Your task to perform on an android device: turn off data saver in the chrome app Image 0: 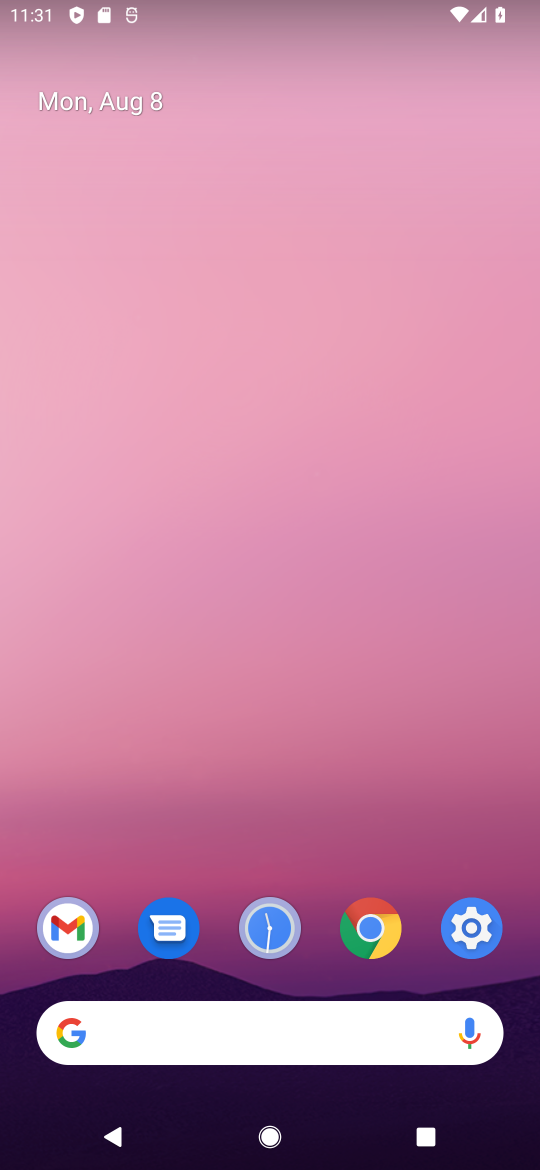
Step 0: press home button
Your task to perform on an android device: turn off data saver in the chrome app Image 1: 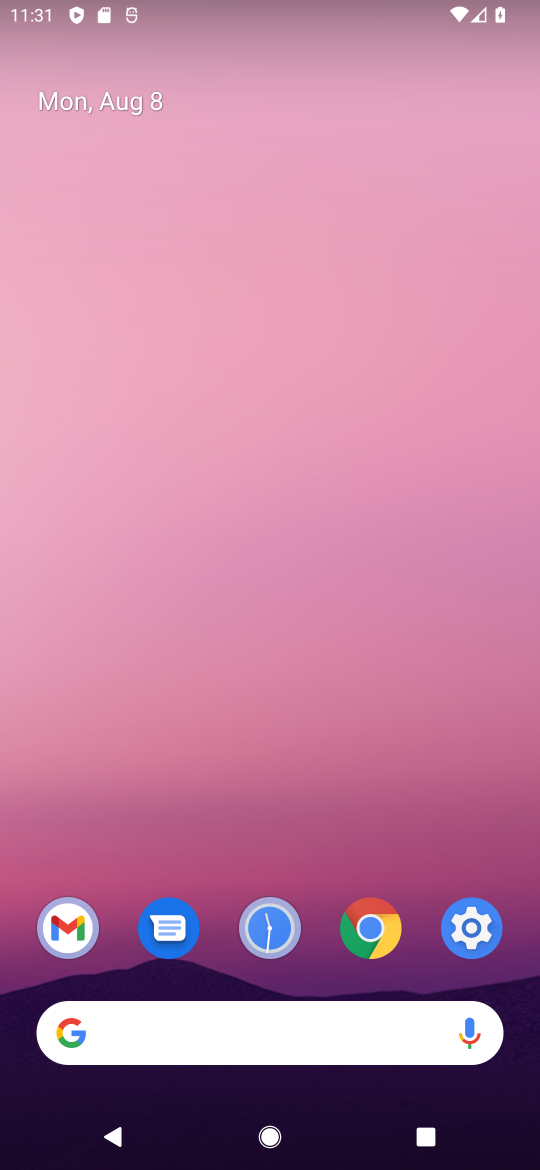
Step 1: click (374, 932)
Your task to perform on an android device: turn off data saver in the chrome app Image 2: 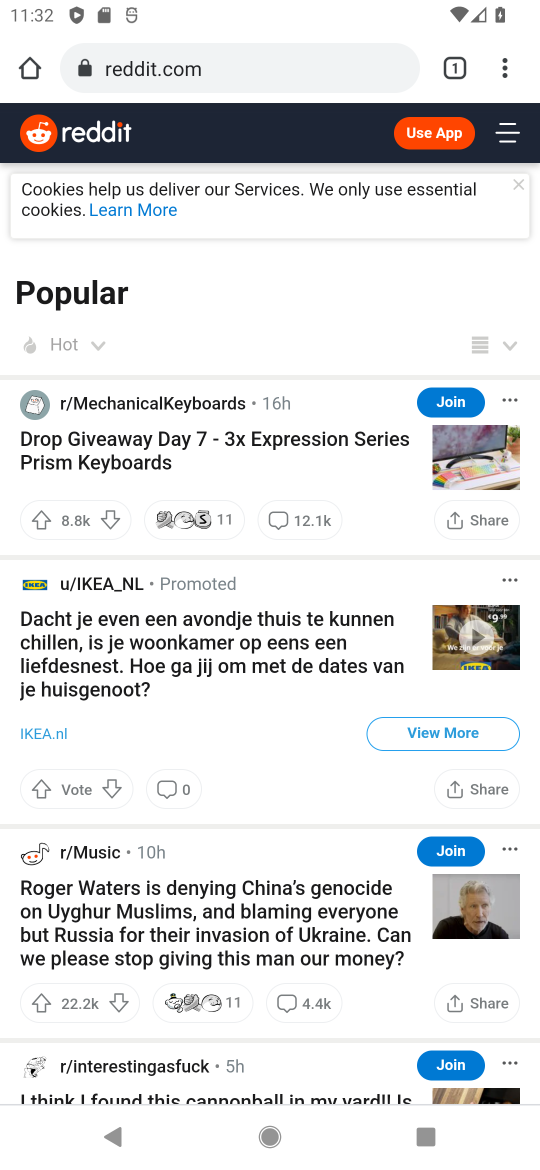
Step 2: click (496, 70)
Your task to perform on an android device: turn off data saver in the chrome app Image 3: 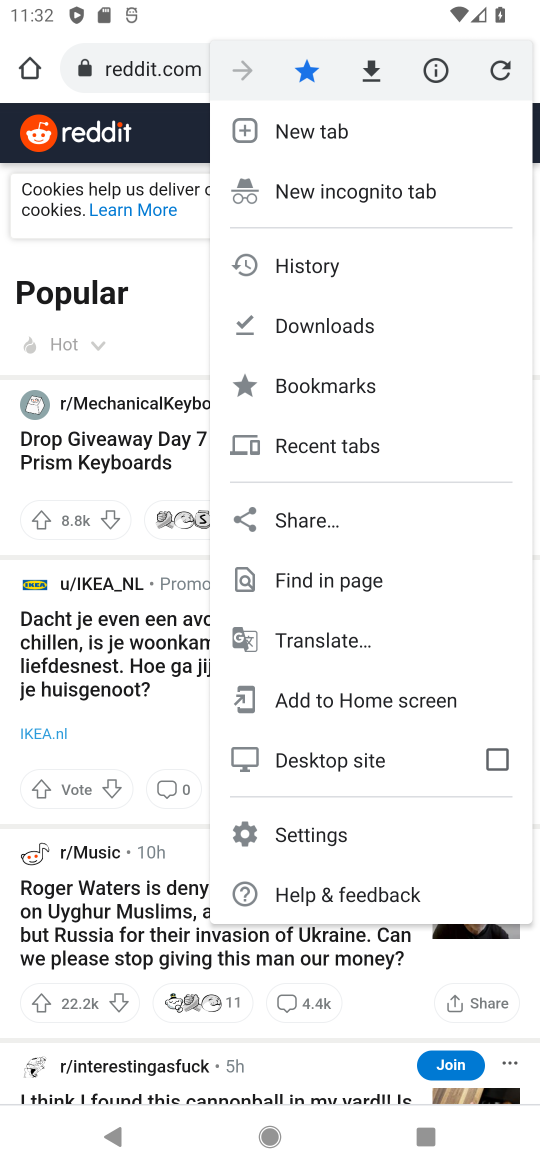
Step 3: click (312, 829)
Your task to perform on an android device: turn off data saver in the chrome app Image 4: 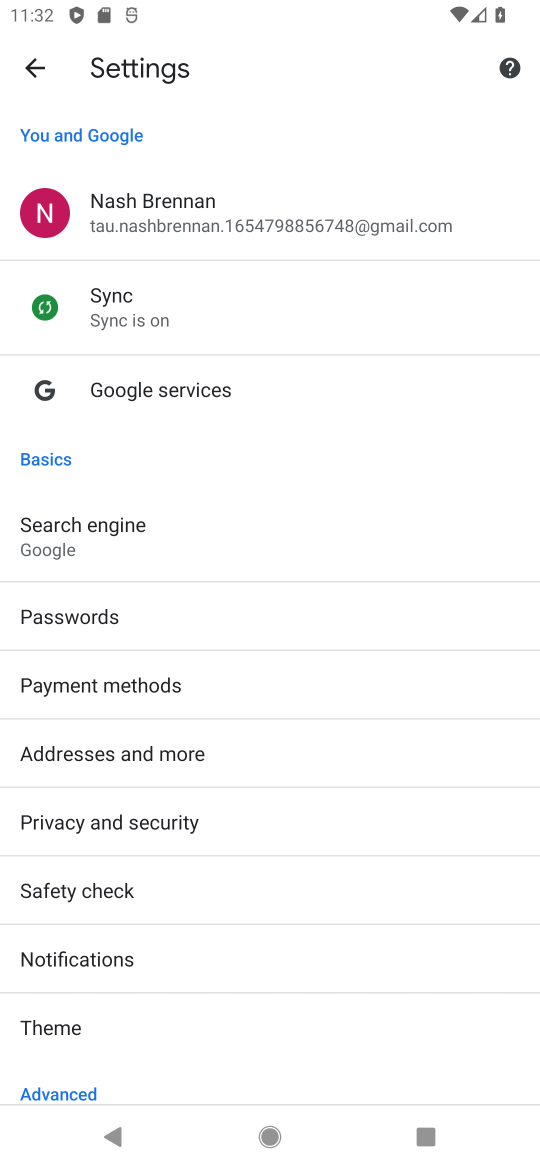
Step 4: drag from (157, 956) to (208, 712)
Your task to perform on an android device: turn off data saver in the chrome app Image 5: 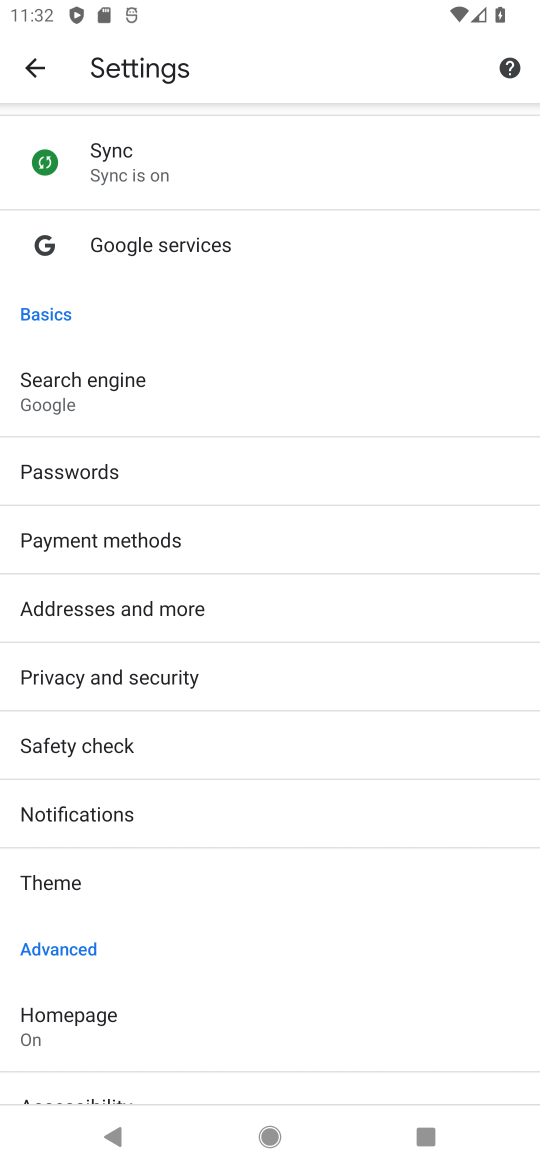
Step 5: drag from (150, 996) to (180, 749)
Your task to perform on an android device: turn off data saver in the chrome app Image 6: 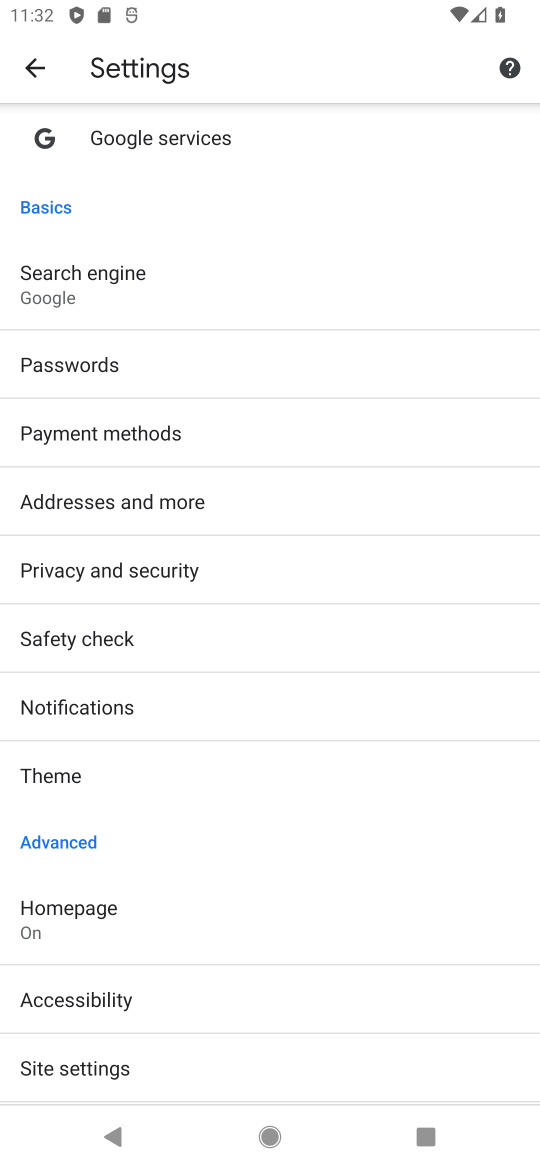
Step 6: drag from (144, 957) to (152, 788)
Your task to perform on an android device: turn off data saver in the chrome app Image 7: 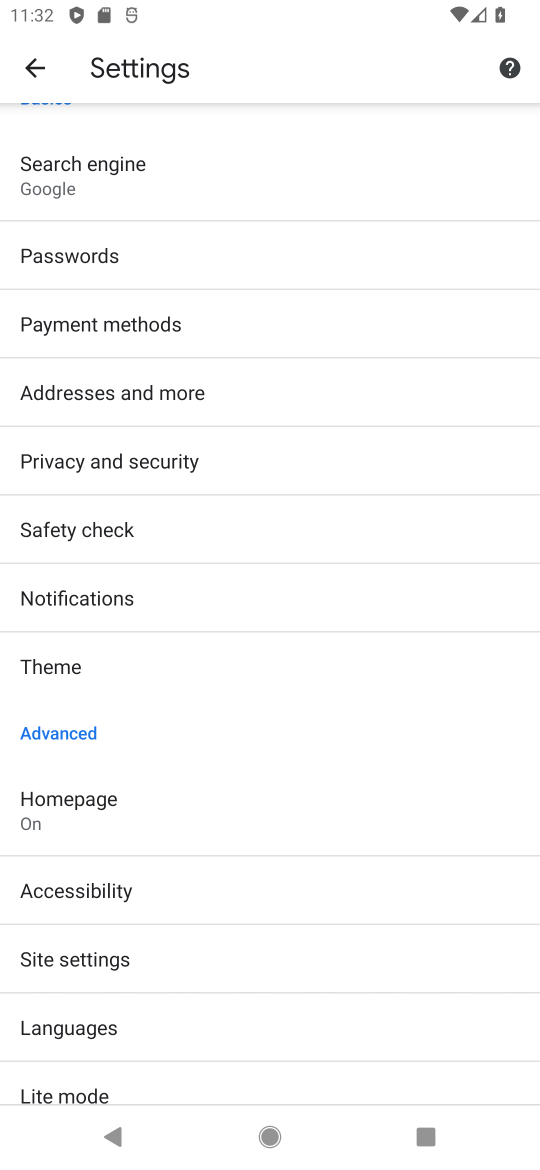
Step 7: click (99, 1080)
Your task to perform on an android device: turn off data saver in the chrome app Image 8: 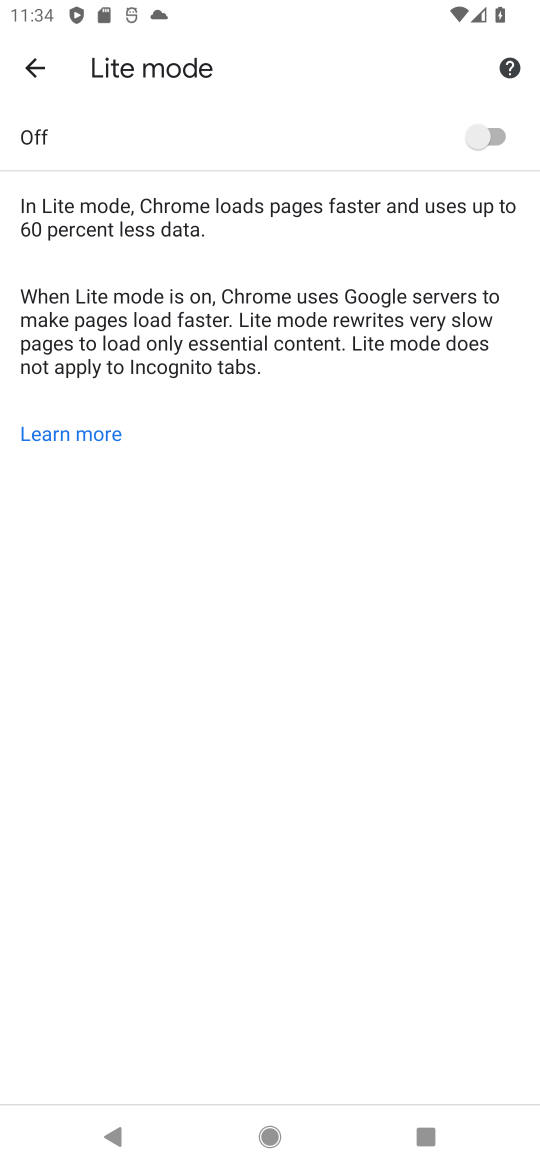
Step 8: task complete